Your task to perform on an android device: remove spam from my inbox in the gmail app Image 0: 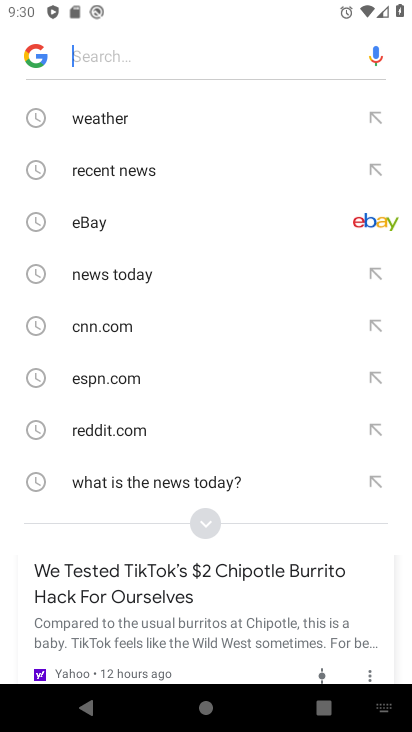
Step 0: press home button
Your task to perform on an android device: remove spam from my inbox in the gmail app Image 1: 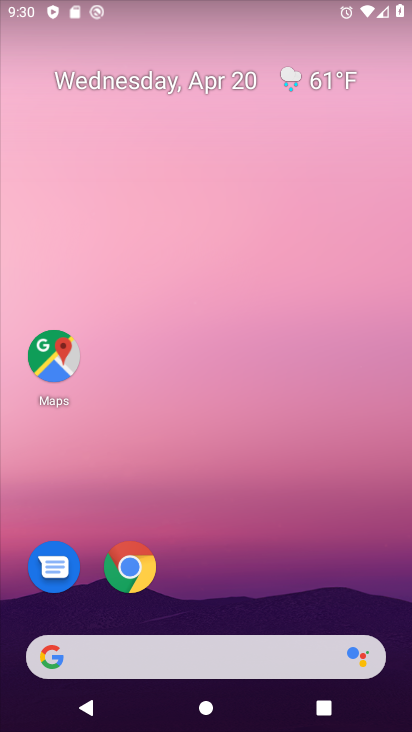
Step 1: drag from (214, 603) to (212, 195)
Your task to perform on an android device: remove spam from my inbox in the gmail app Image 2: 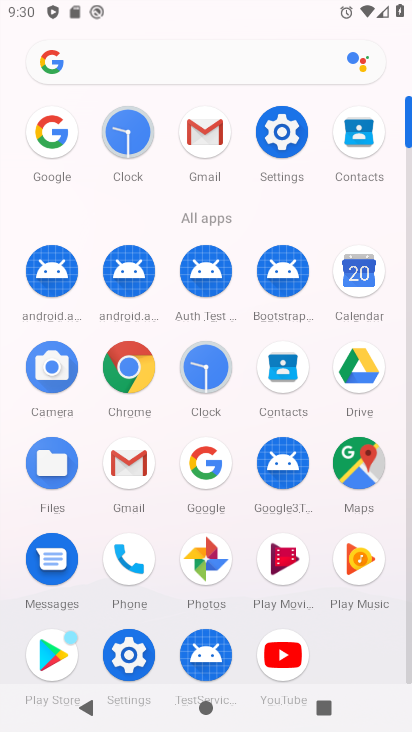
Step 2: click (205, 134)
Your task to perform on an android device: remove spam from my inbox in the gmail app Image 3: 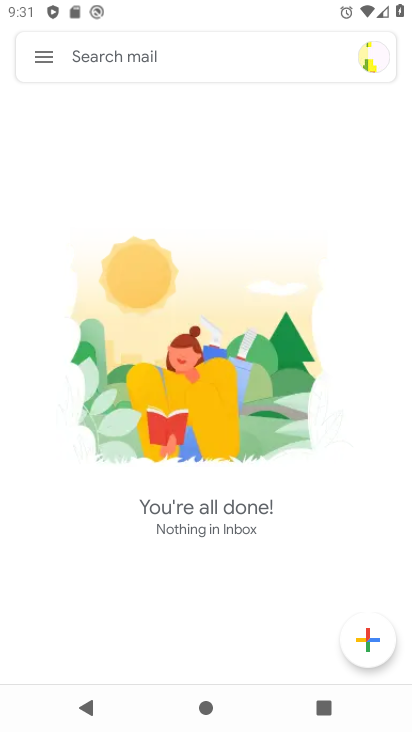
Step 3: click (49, 45)
Your task to perform on an android device: remove spam from my inbox in the gmail app Image 4: 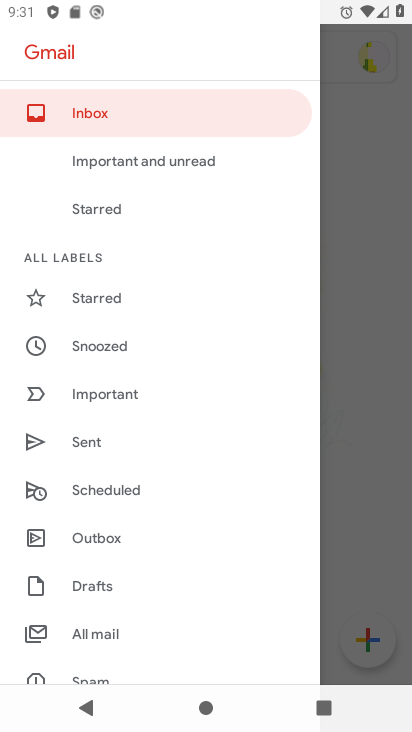
Step 4: drag from (119, 601) to (149, 317)
Your task to perform on an android device: remove spam from my inbox in the gmail app Image 5: 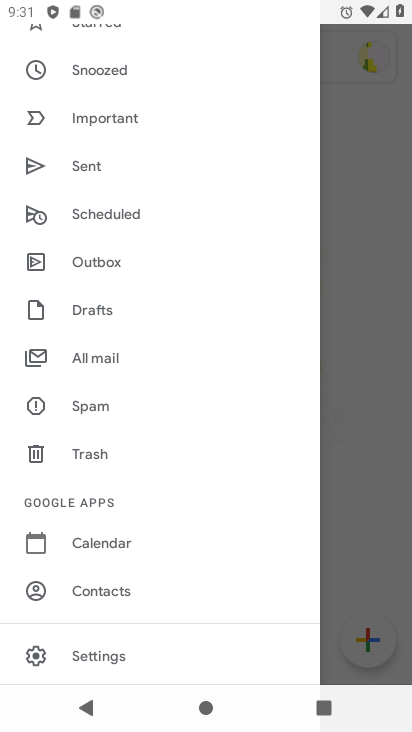
Step 5: click (118, 398)
Your task to perform on an android device: remove spam from my inbox in the gmail app Image 6: 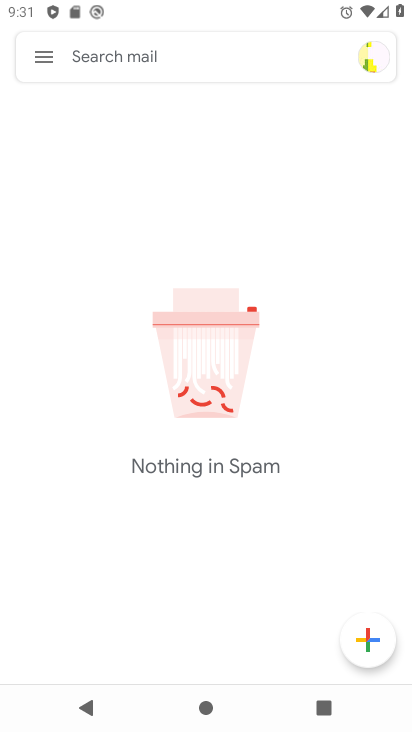
Step 6: task complete